Your task to perform on an android device: Open wifi settings Image 0: 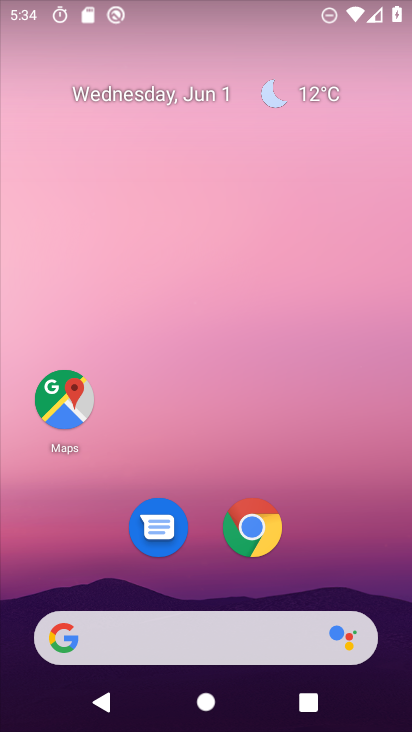
Step 0: drag from (252, 28) to (214, 658)
Your task to perform on an android device: Open wifi settings Image 1: 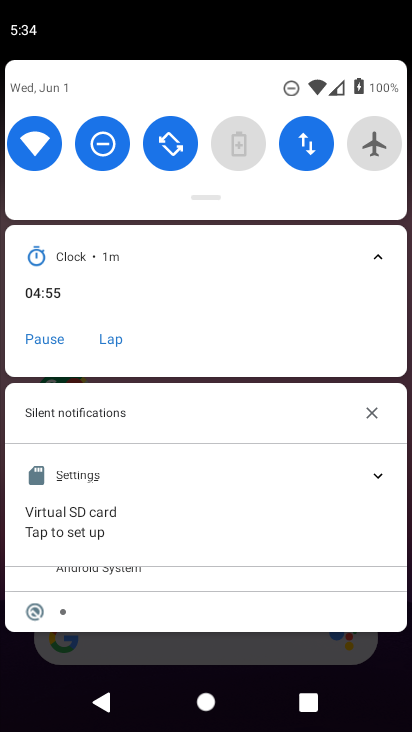
Step 1: click (38, 134)
Your task to perform on an android device: Open wifi settings Image 2: 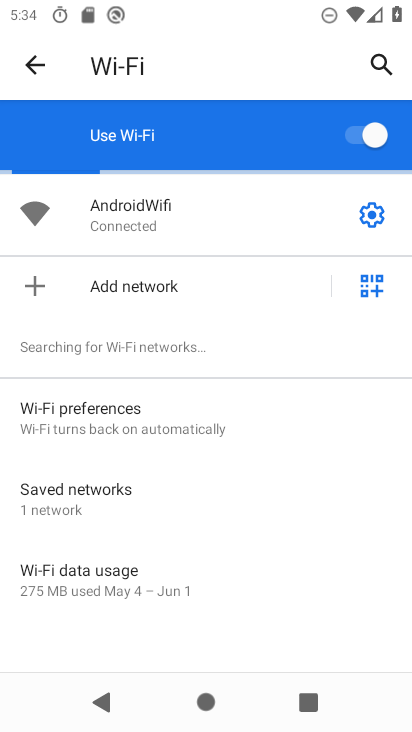
Step 2: task complete